Your task to perform on an android device: Turn off the flashlight Image 0: 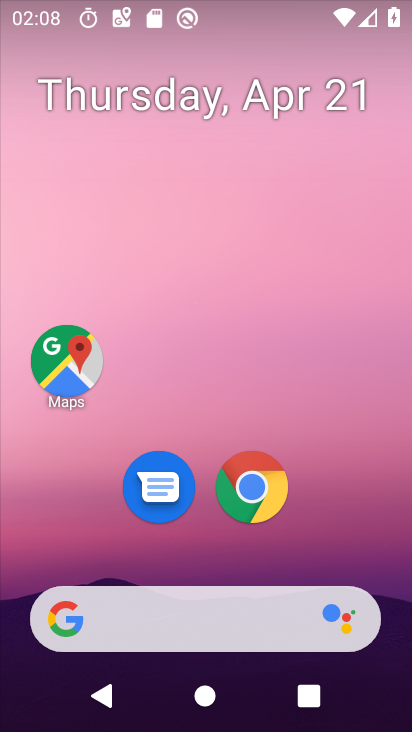
Step 0: drag from (207, 572) to (285, 233)
Your task to perform on an android device: Turn off the flashlight Image 1: 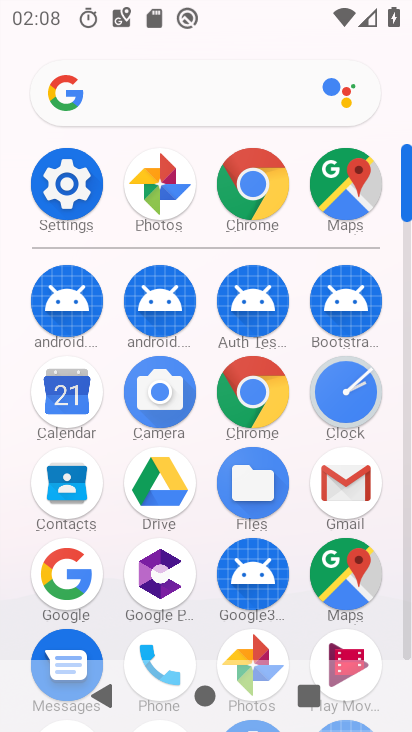
Step 1: click (60, 184)
Your task to perform on an android device: Turn off the flashlight Image 2: 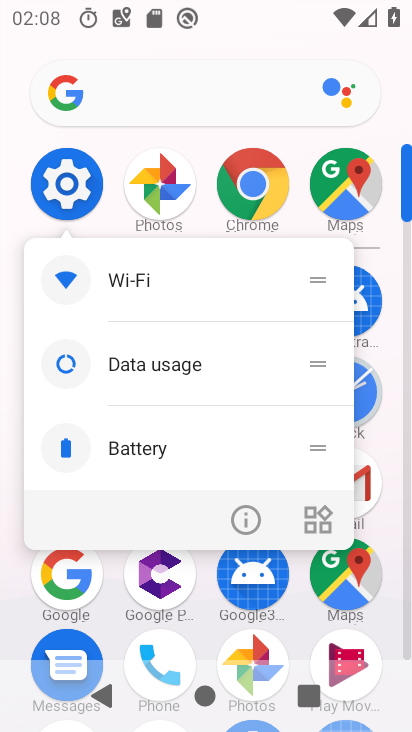
Step 2: click (237, 519)
Your task to perform on an android device: Turn off the flashlight Image 3: 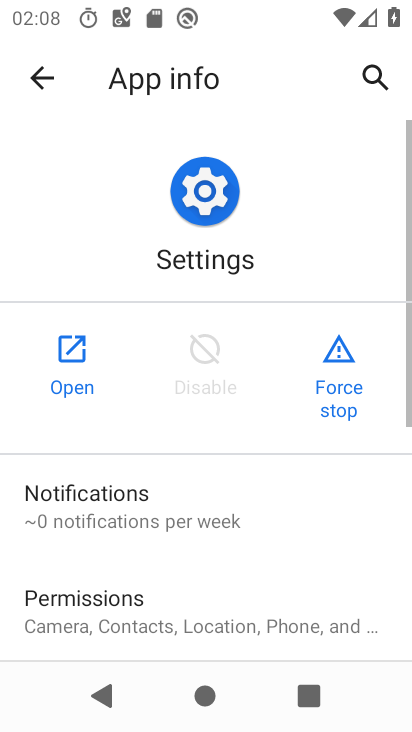
Step 3: click (72, 361)
Your task to perform on an android device: Turn off the flashlight Image 4: 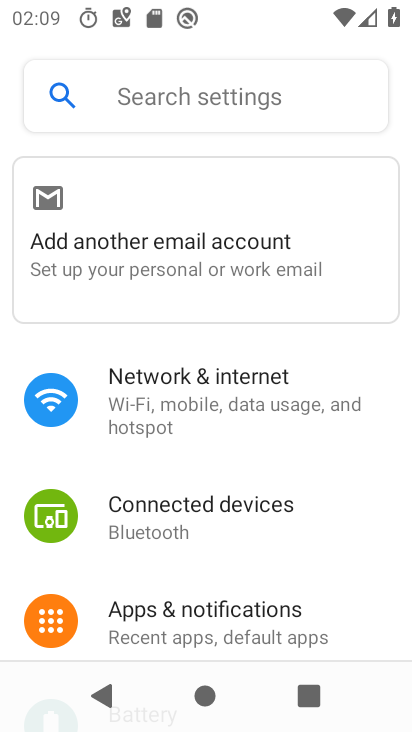
Step 4: click (187, 107)
Your task to perform on an android device: Turn off the flashlight Image 5: 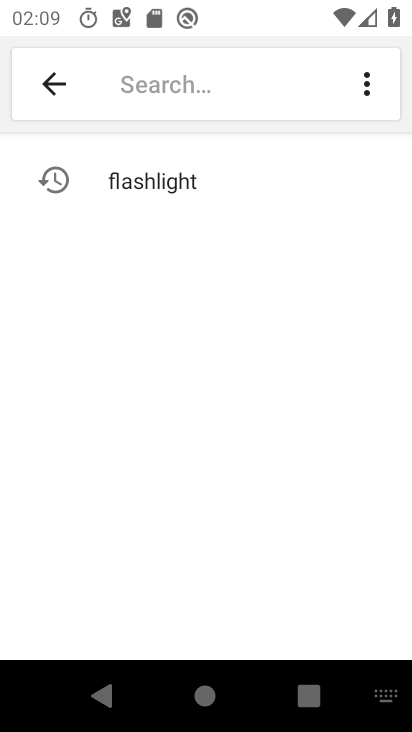
Step 5: type "flashlight"
Your task to perform on an android device: Turn off the flashlight Image 6: 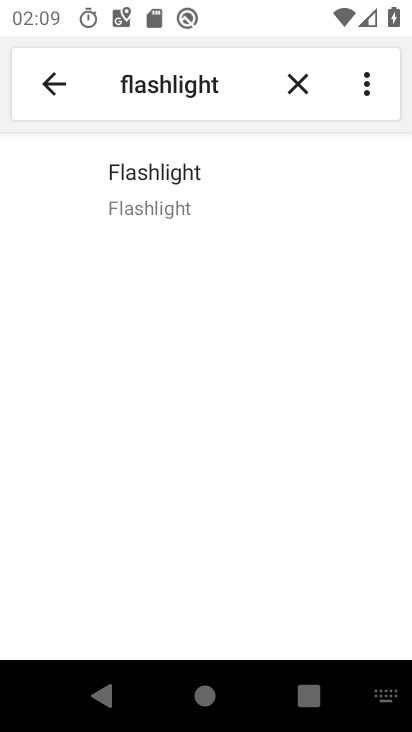
Step 6: click (206, 188)
Your task to perform on an android device: Turn off the flashlight Image 7: 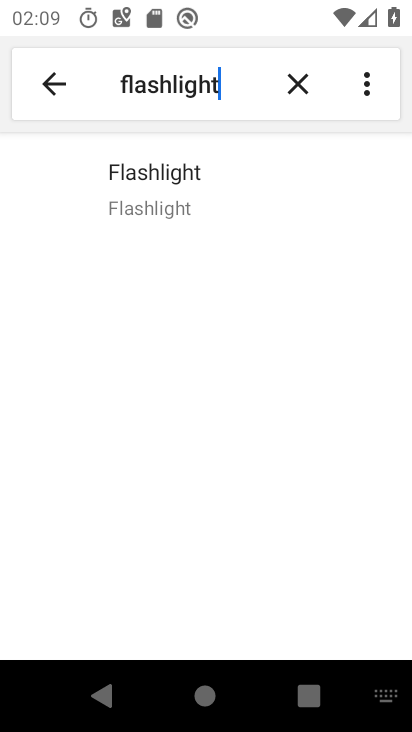
Step 7: task complete